Your task to perform on an android device: uninstall "AliExpress" Image 0: 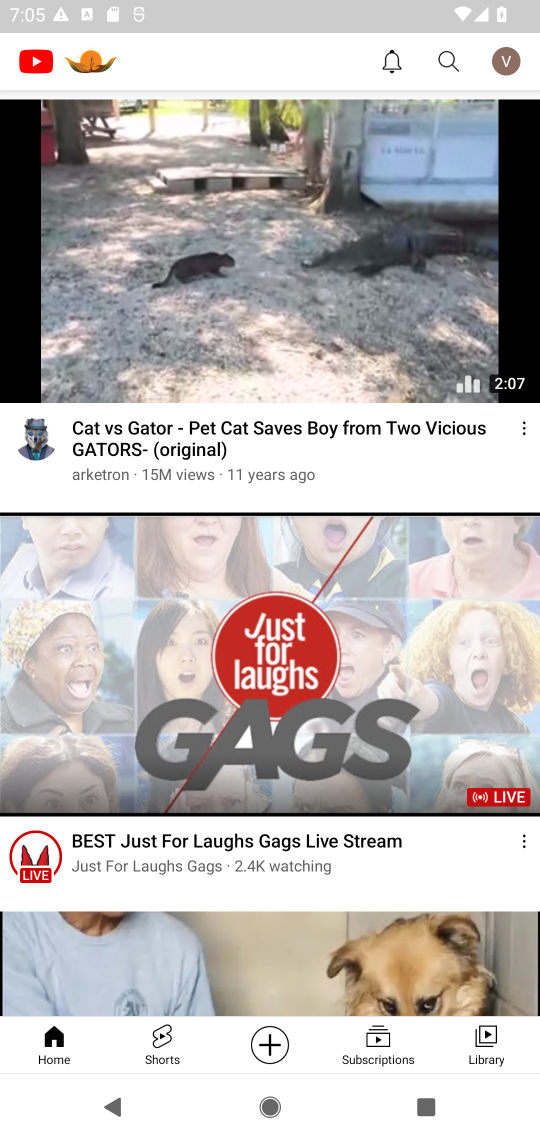
Step 0: press home button
Your task to perform on an android device: uninstall "AliExpress" Image 1: 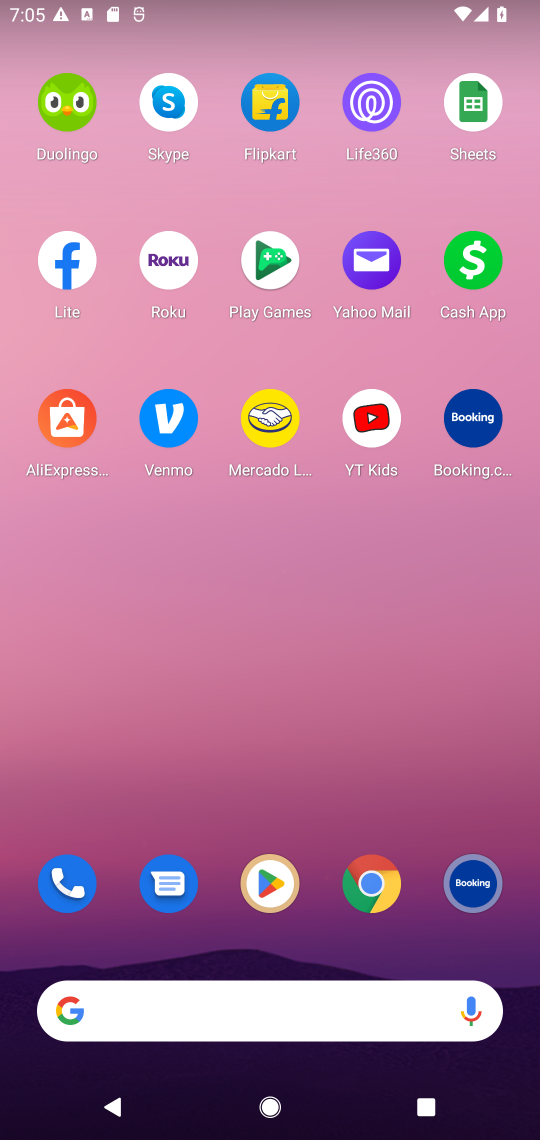
Step 1: drag from (309, 919) to (295, 105)
Your task to perform on an android device: uninstall "AliExpress" Image 2: 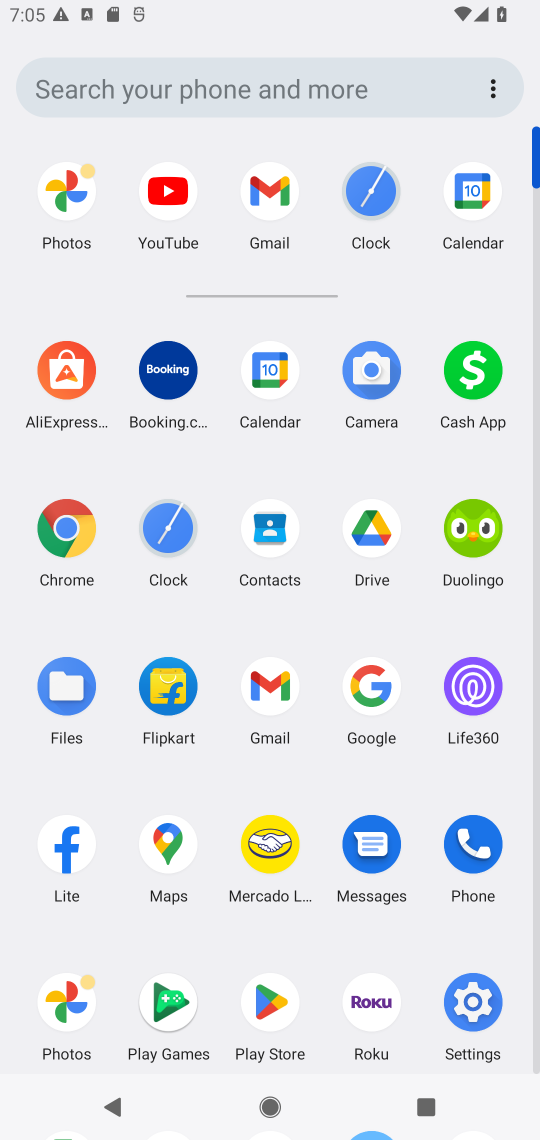
Step 2: click (266, 1002)
Your task to perform on an android device: uninstall "AliExpress" Image 3: 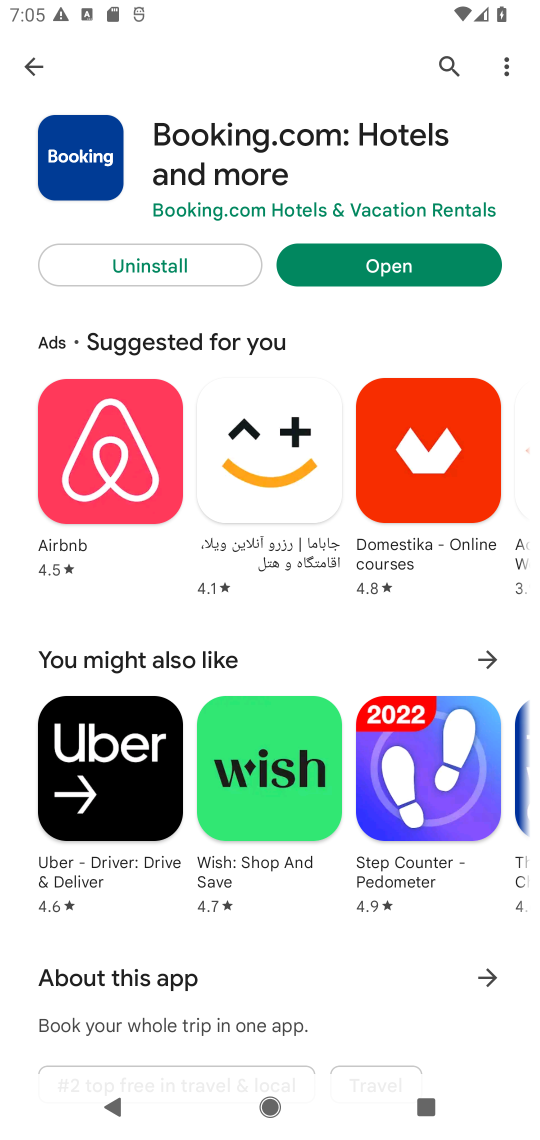
Step 3: click (437, 57)
Your task to perform on an android device: uninstall "AliExpress" Image 4: 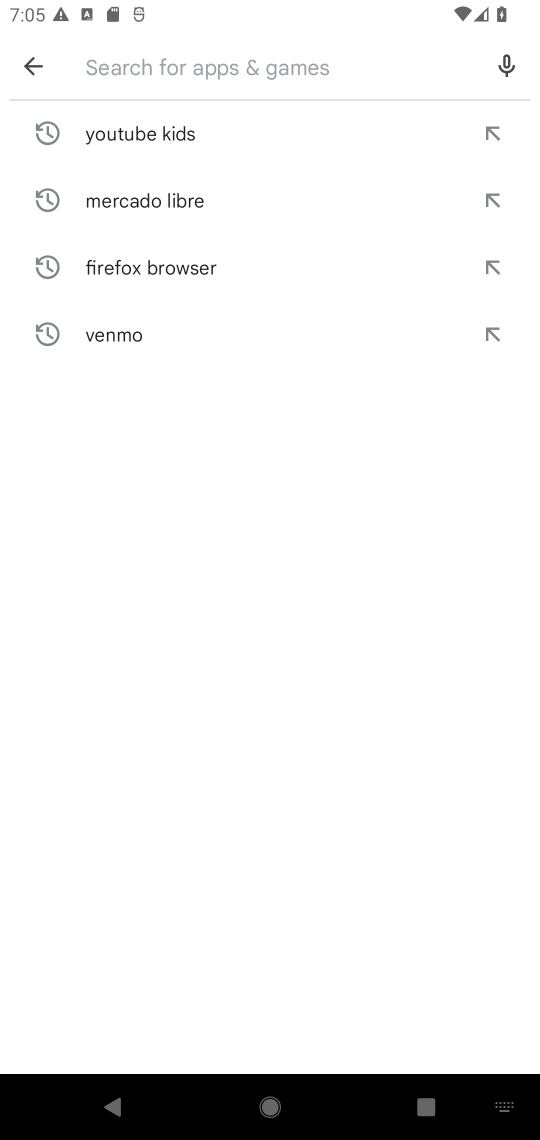
Step 4: type "AliExpress"
Your task to perform on an android device: uninstall "AliExpress" Image 5: 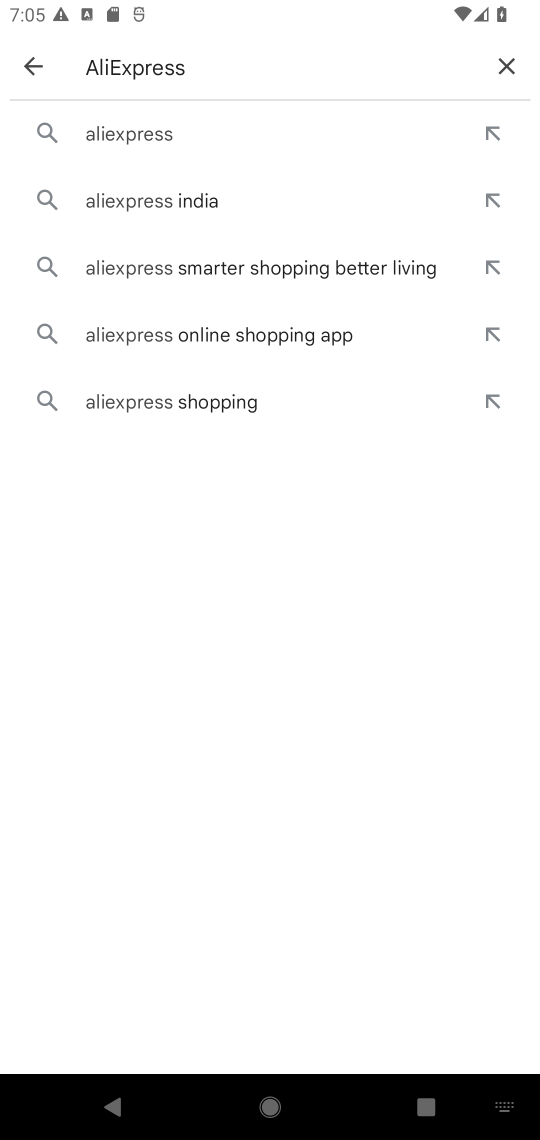
Step 5: click (116, 134)
Your task to perform on an android device: uninstall "AliExpress" Image 6: 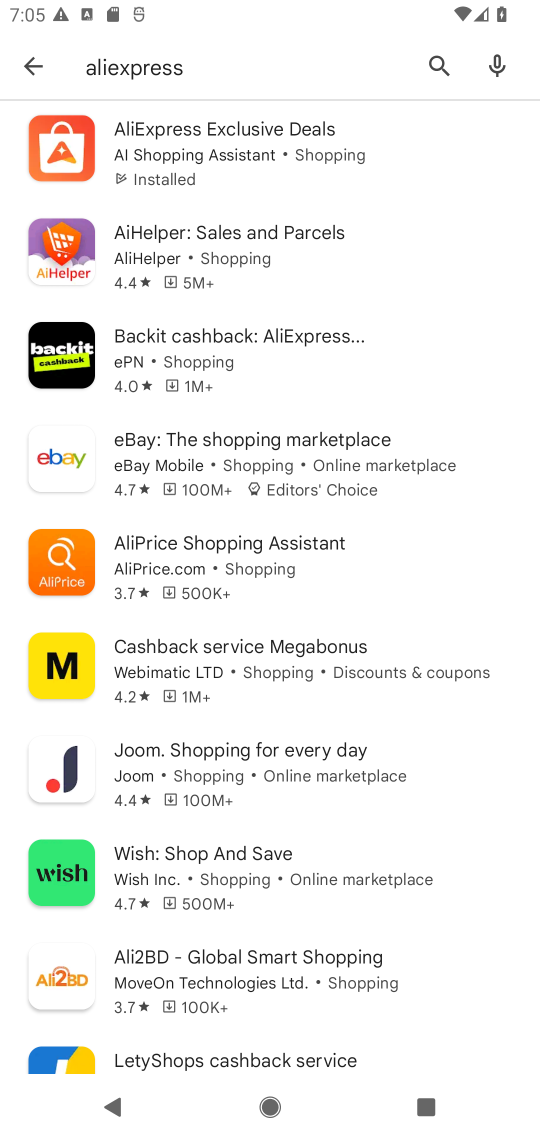
Step 6: click (237, 138)
Your task to perform on an android device: uninstall "AliExpress" Image 7: 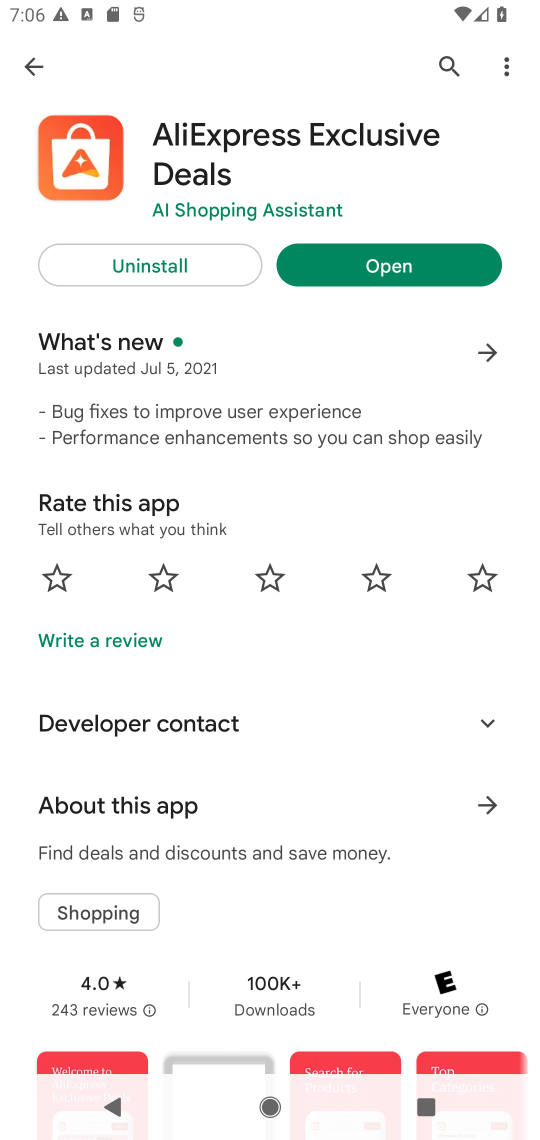
Step 7: click (183, 263)
Your task to perform on an android device: uninstall "AliExpress" Image 8: 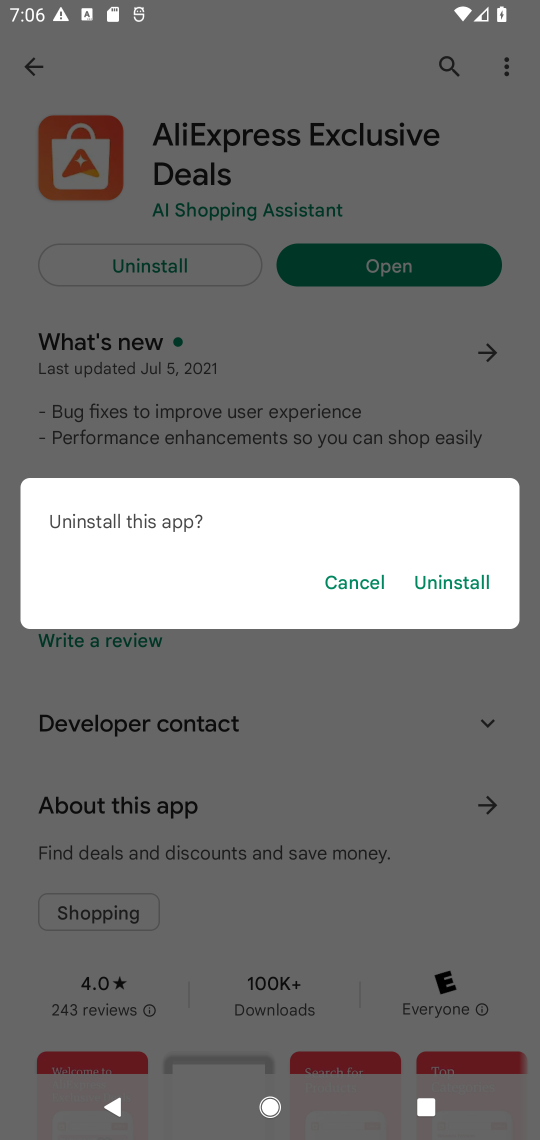
Step 8: click (433, 579)
Your task to perform on an android device: uninstall "AliExpress" Image 9: 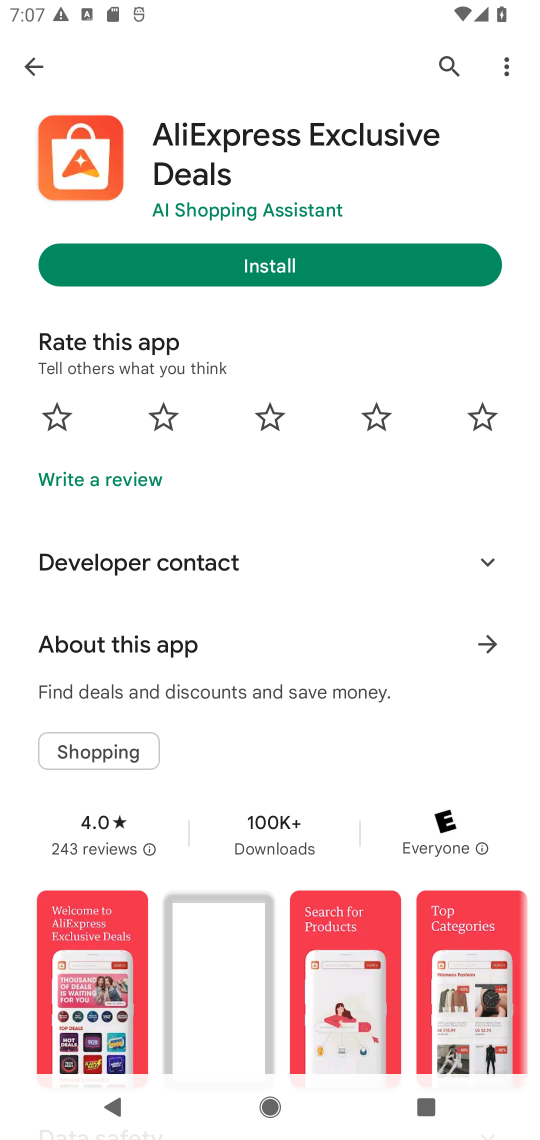
Step 9: task complete